Your task to perform on an android device: turn on javascript in the chrome app Image 0: 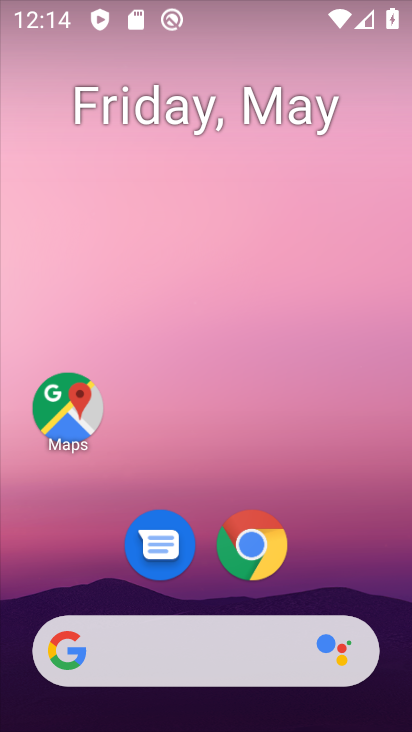
Step 0: click (258, 544)
Your task to perform on an android device: turn on javascript in the chrome app Image 1: 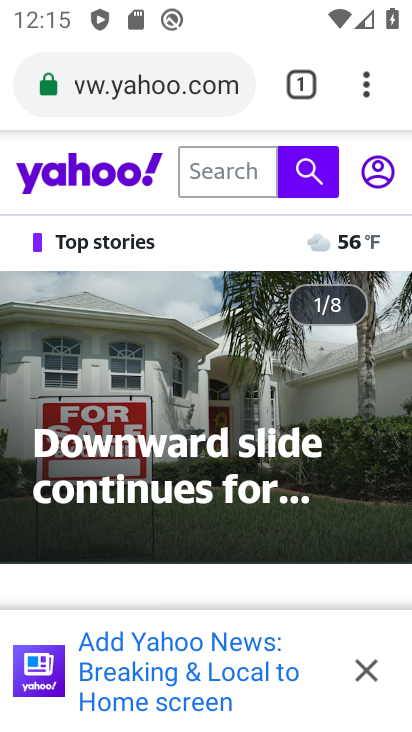
Step 1: click (378, 89)
Your task to perform on an android device: turn on javascript in the chrome app Image 2: 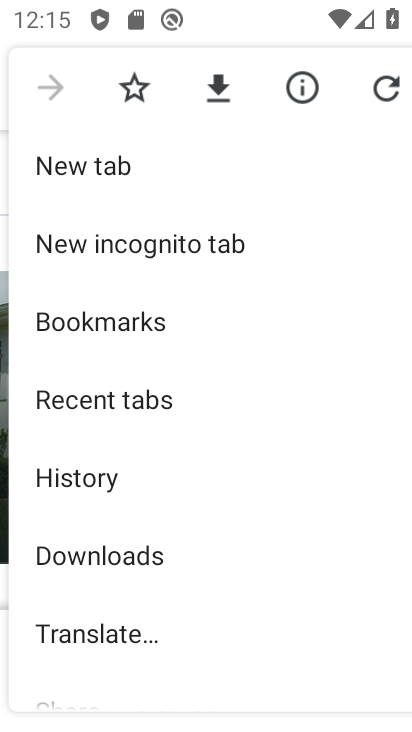
Step 2: drag from (243, 558) to (243, 106)
Your task to perform on an android device: turn on javascript in the chrome app Image 3: 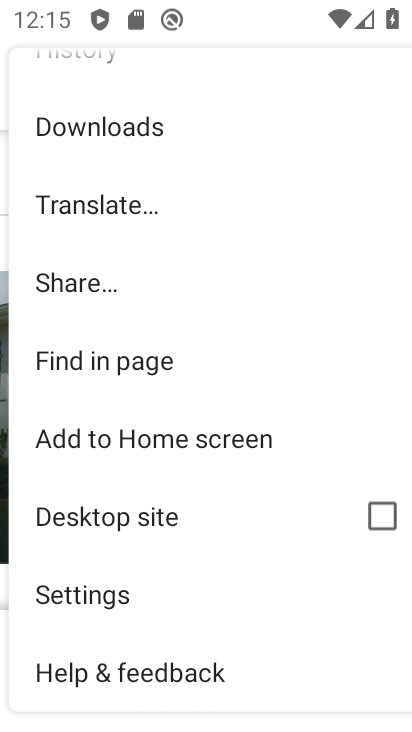
Step 3: drag from (195, 542) to (193, 162)
Your task to perform on an android device: turn on javascript in the chrome app Image 4: 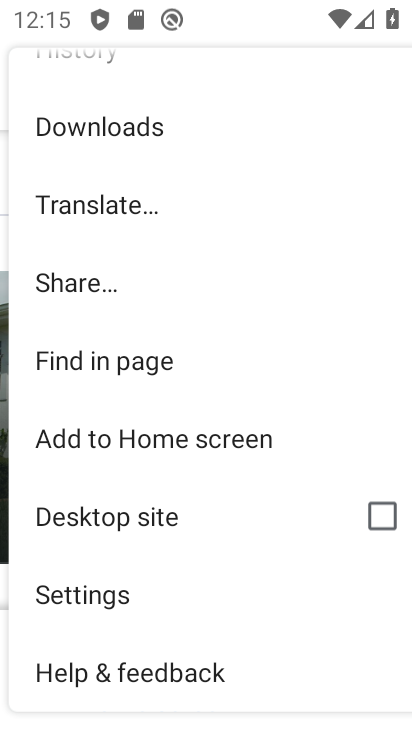
Step 4: click (171, 596)
Your task to perform on an android device: turn on javascript in the chrome app Image 5: 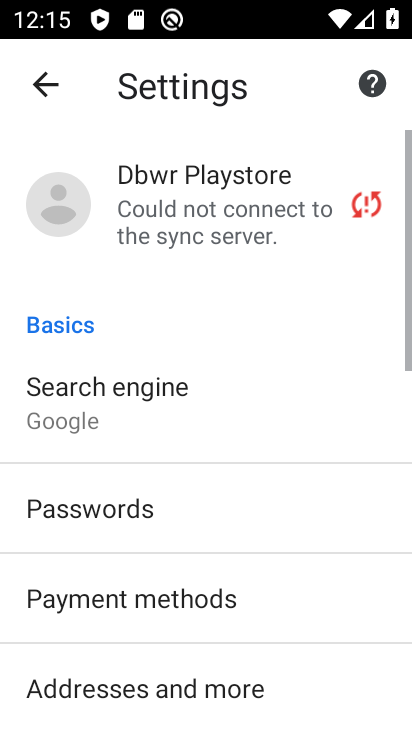
Step 5: drag from (225, 608) to (223, 332)
Your task to perform on an android device: turn on javascript in the chrome app Image 6: 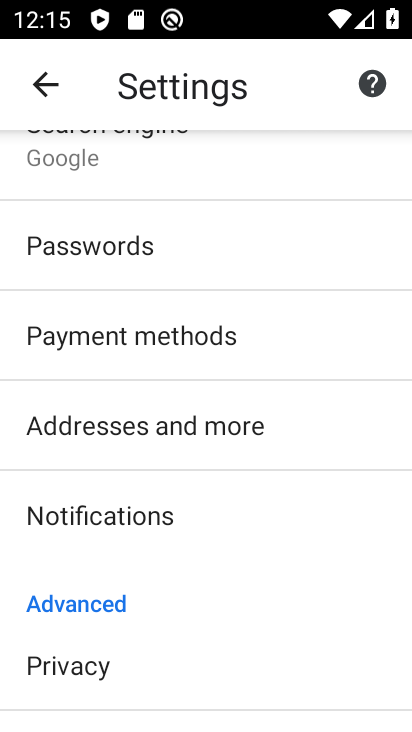
Step 6: drag from (224, 559) to (192, 275)
Your task to perform on an android device: turn on javascript in the chrome app Image 7: 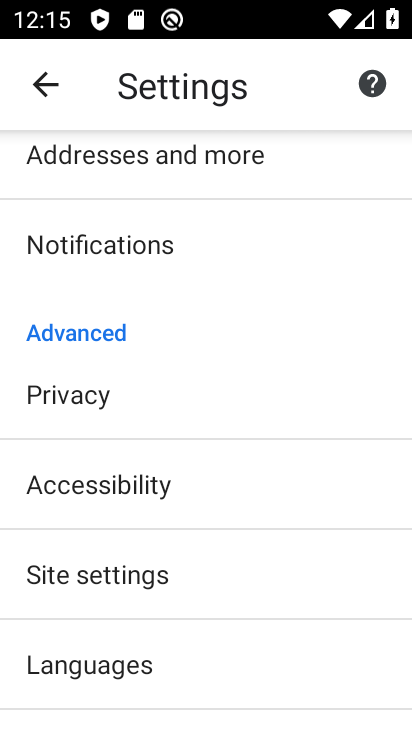
Step 7: drag from (233, 599) to (233, 319)
Your task to perform on an android device: turn on javascript in the chrome app Image 8: 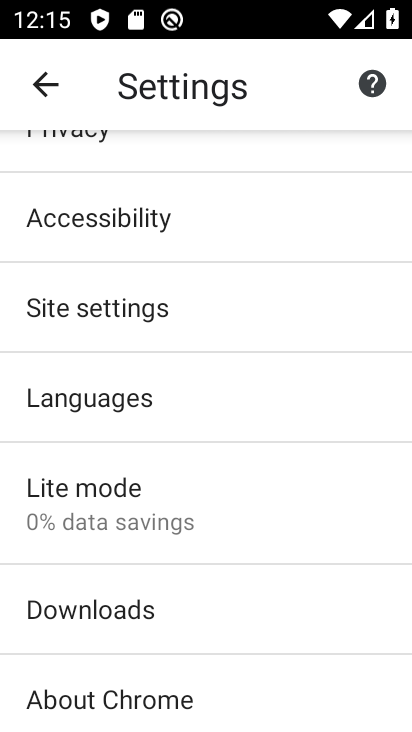
Step 8: click (249, 288)
Your task to perform on an android device: turn on javascript in the chrome app Image 9: 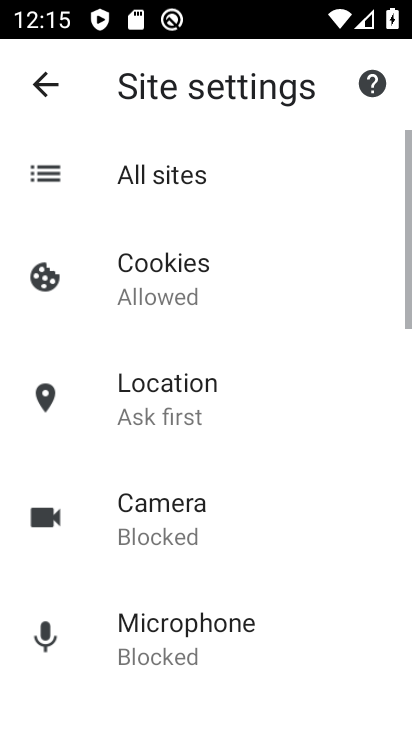
Step 9: drag from (265, 383) to (284, 121)
Your task to perform on an android device: turn on javascript in the chrome app Image 10: 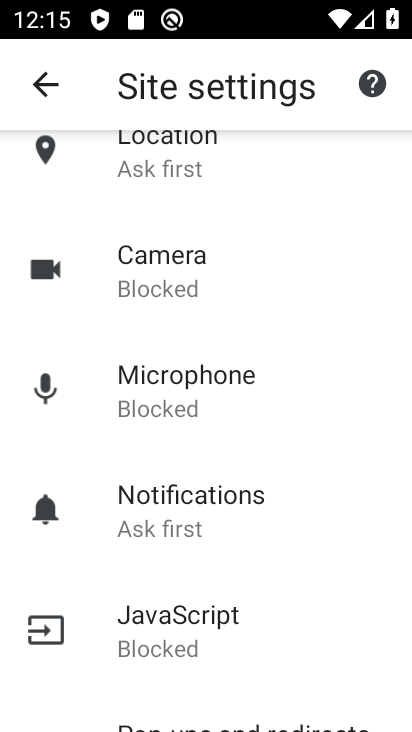
Step 10: click (311, 644)
Your task to perform on an android device: turn on javascript in the chrome app Image 11: 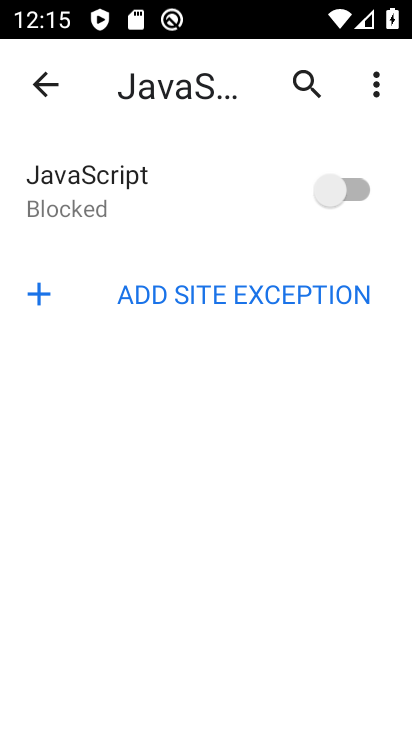
Step 11: click (348, 184)
Your task to perform on an android device: turn on javascript in the chrome app Image 12: 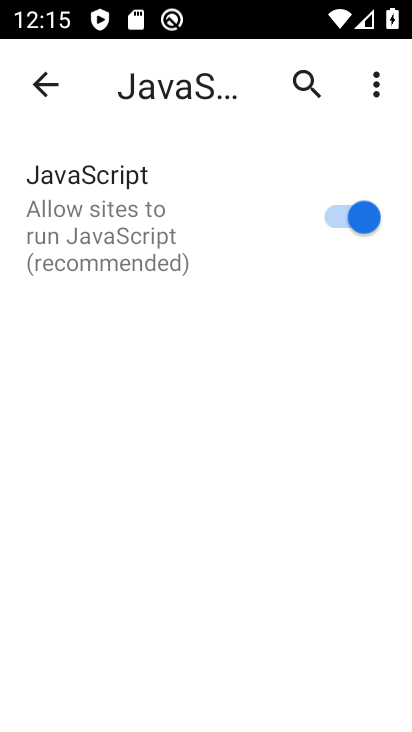
Step 12: task complete